Your task to perform on an android device: change notifications settings Image 0: 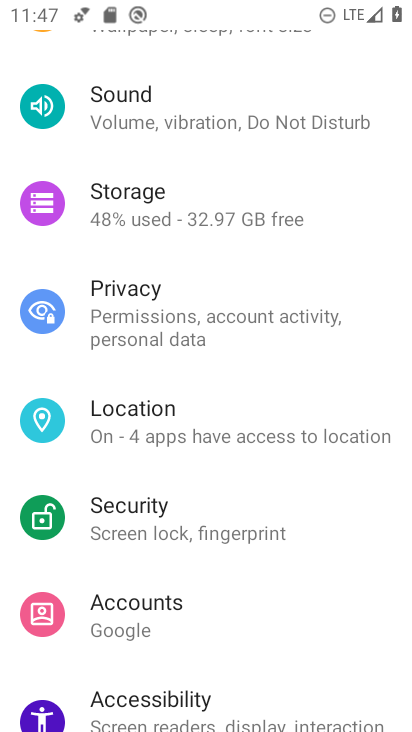
Step 0: drag from (209, 79) to (262, 565)
Your task to perform on an android device: change notifications settings Image 1: 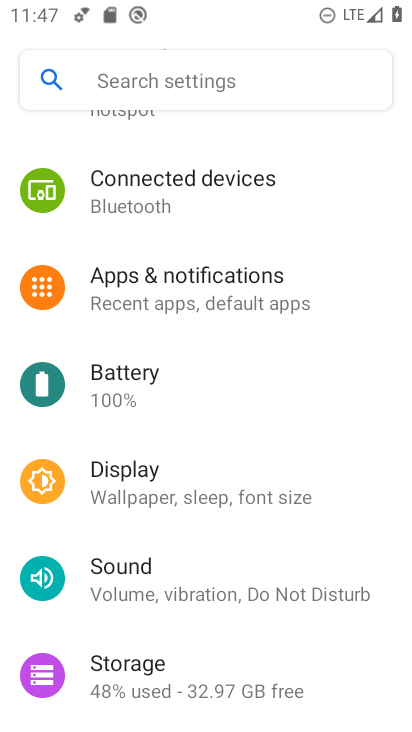
Step 1: click (173, 274)
Your task to perform on an android device: change notifications settings Image 2: 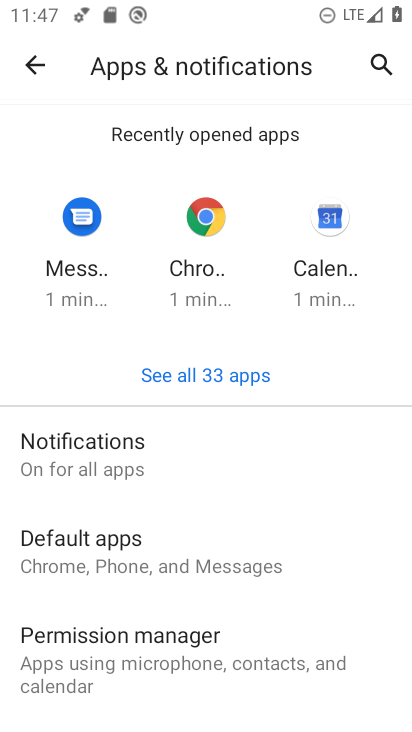
Step 2: click (90, 459)
Your task to perform on an android device: change notifications settings Image 3: 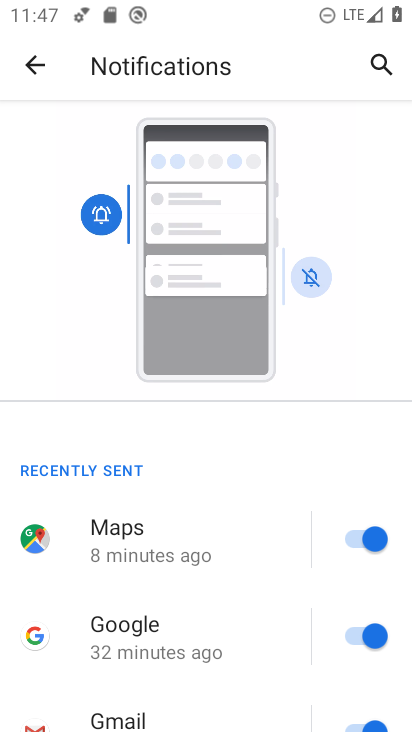
Step 3: drag from (115, 660) to (158, 178)
Your task to perform on an android device: change notifications settings Image 4: 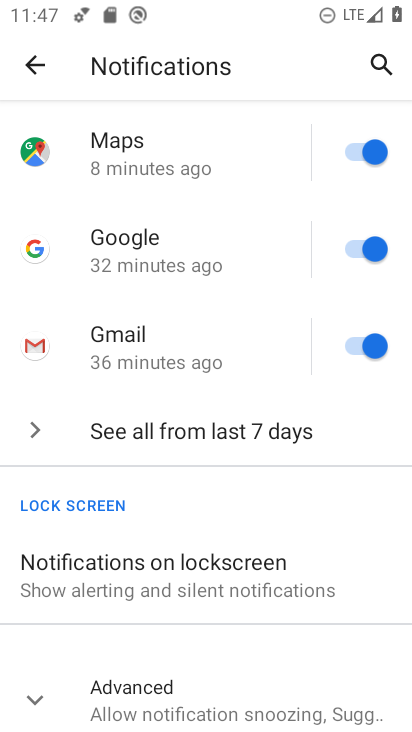
Step 4: click (91, 554)
Your task to perform on an android device: change notifications settings Image 5: 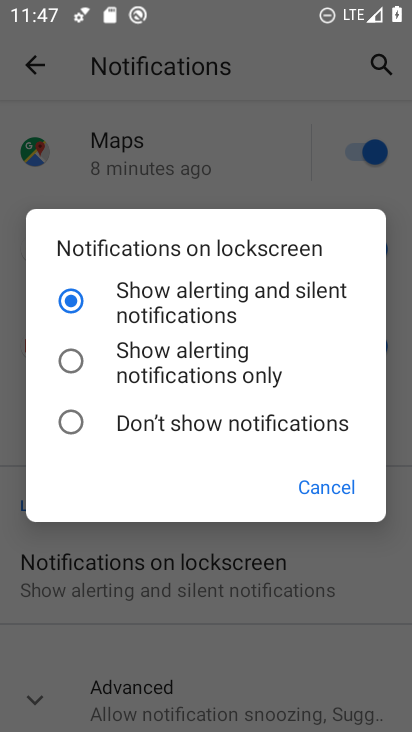
Step 5: click (124, 421)
Your task to perform on an android device: change notifications settings Image 6: 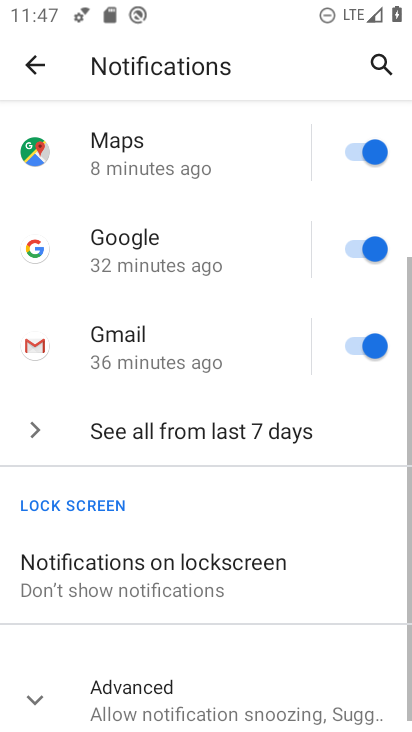
Step 6: task complete